Your task to perform on an android device: open app "Truecaller" (install if not already installed), go to login, and select forgot password Image 0: 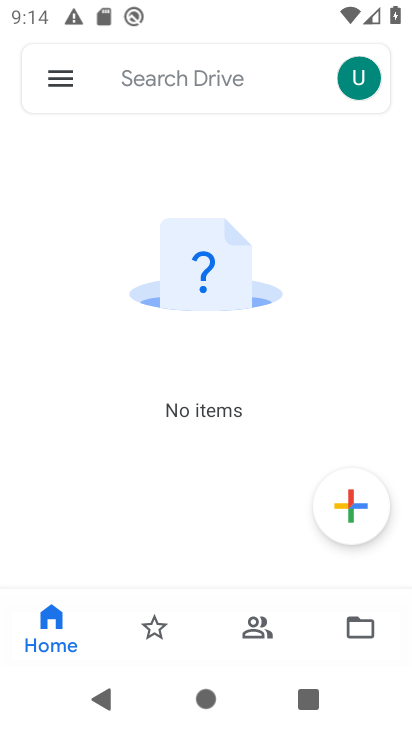
Step 0: press home button
Your task to perform on an android device: open app "Truecaller" (install if not already installed), go to login, and select forgot password Image 1: 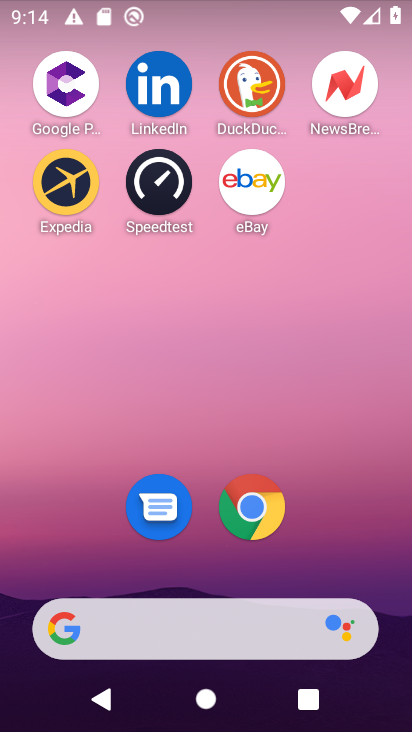
Step 1: drag from (182, 571) to (168, 41)
Your task to perform on an android device: open app "Truecaller" (install if not already installed), go to login, and select forgot password Image 2: 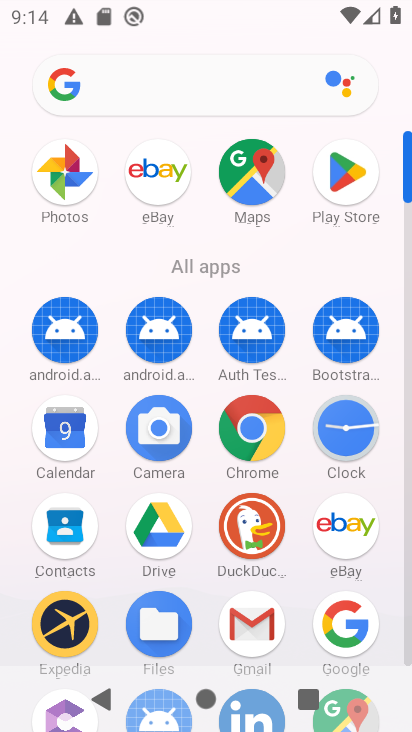
Step 2: click (345, 171)
Your task to perform on an android device: open app "Truecaller" (install if not already installed), go to login, and select forgot password Image 3: 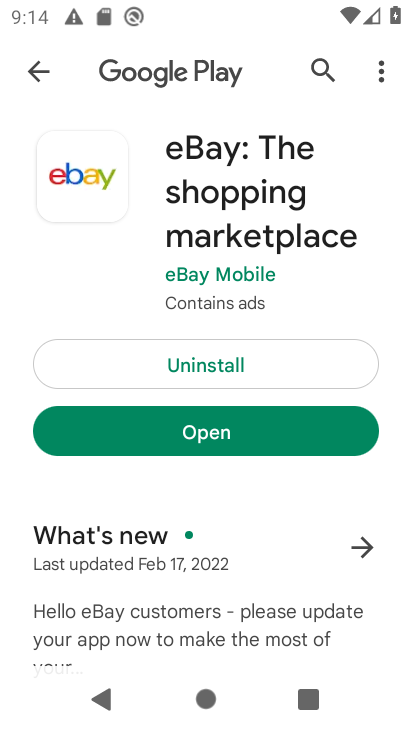
Step 3: click (327, 65)
Your task to perform on an android device: open app "Truecaller" (install if not already installed), go to login, and select forgot password Image 4: 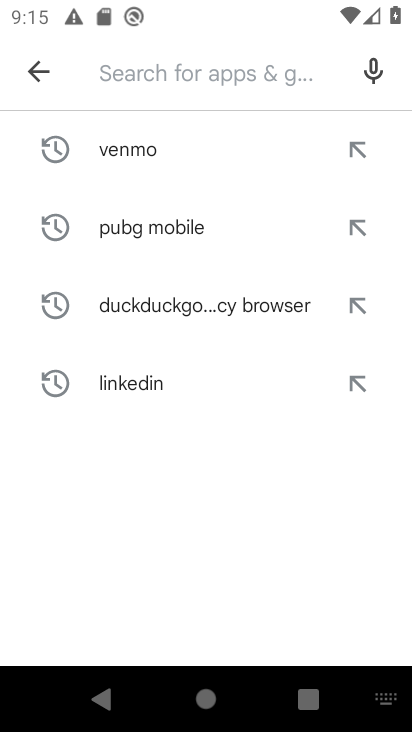
Step 4: type "Truecaller"
Your task to perform on an android device: open app "Truecaller" (install if not already installed), go to login, and select forgot password Image 5: 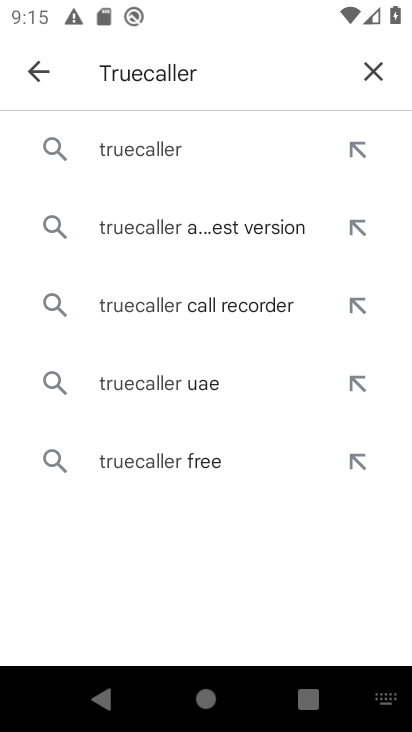
Step 5: click (145, 153)
Your task to perform on an android device: open app "Truecaller" (install if not already installed), go to login, and select forgot password Image 6: 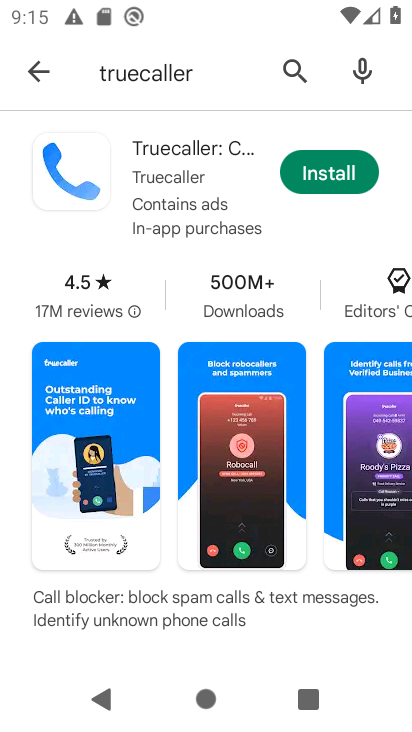
Step 6: click (321, 178)
Your task to perform on an android device: open app "Truecaller" (install if not already installed), go to login, and select forgot password Image 7: 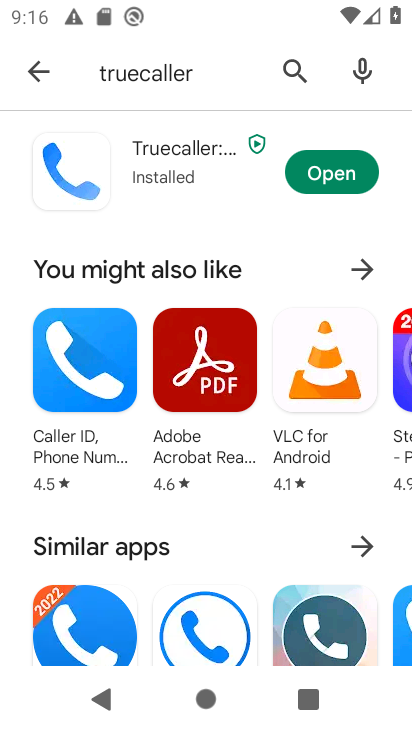
Step 7: click (345, 181)
Your task to perform on an android device: open app "Truecaller" (install if not already installed), go to login, and select forgot password Image 8: 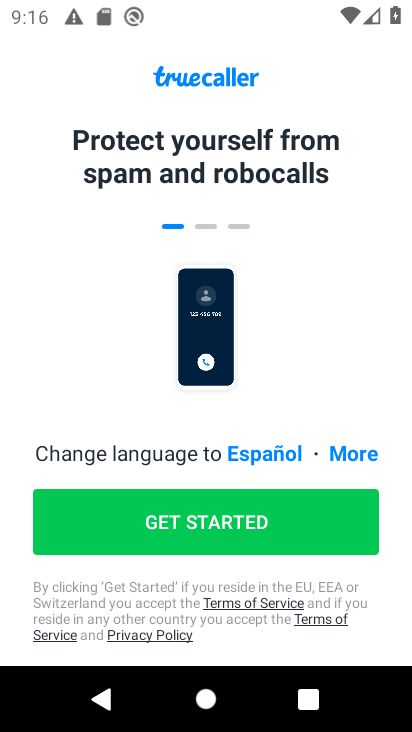
Step 8: click (181, 521)
Your task to perform on an android device: open app "Truecaller" (install if not already installed), go to login, and select forgot password Image 9: 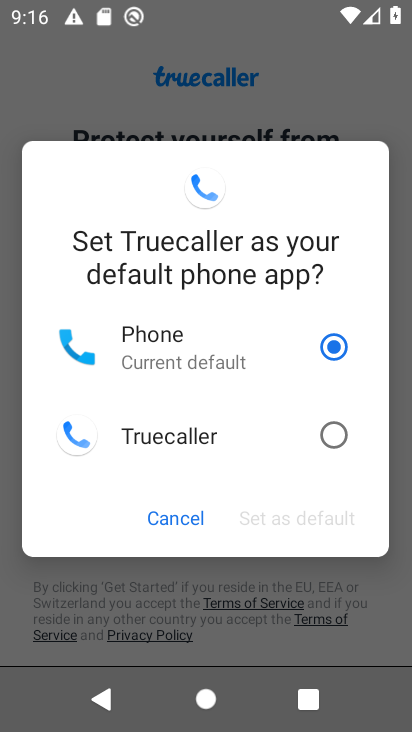
Step 9: click (333, 427)
Your task to perform on an android device: open app "Truecaller" (install if not already installed), go to login, and select forgot password Image 10: 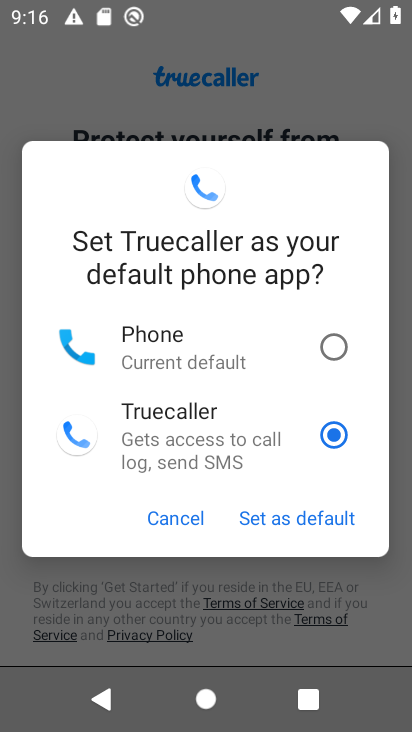
Step 10: click (306, 514)
Your task to perform on an android device: open app "Truecaller" (install if not already installed), go to login, and select forgot password Image 11: 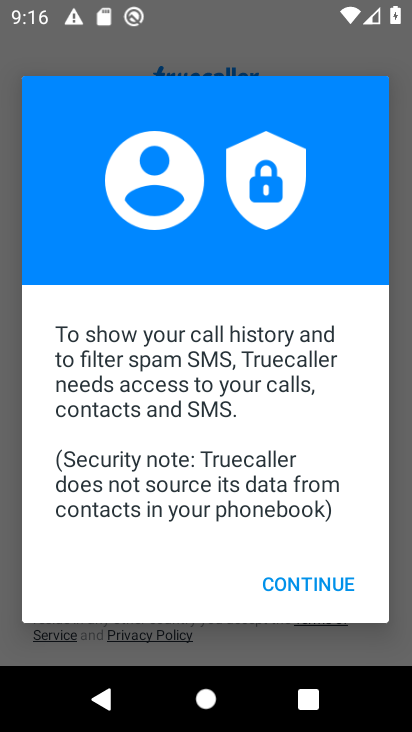
Step 11: click (328, 586)
Your task to perform on an android device: open app "Truecaller" (install if not already installed), go to login, and select forgot password Image 12: 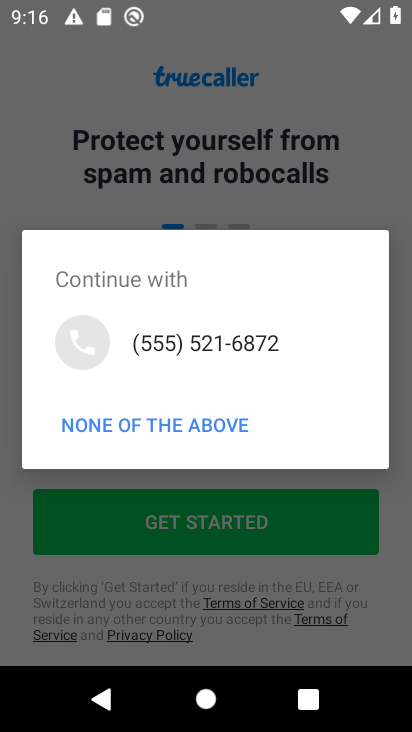
Step 12: click (218, 353)
Your task to perform on an android device: open app "Truecaller" (install if not already installed), go to login, and select forgot password Image 13: 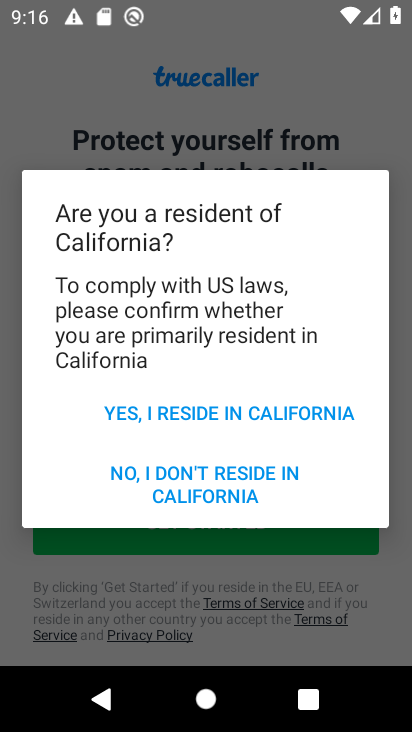
Step 13: click (233, 413)
Your task to perform on an android device: open app "Truecaller" (install if not already installed), go to login, and select forgot password Image 14: 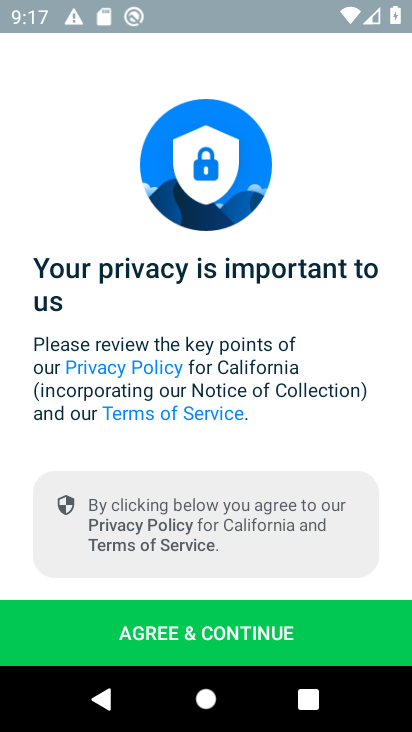
Step 14: click (231, 647)
Your task to perform on an android device: open app "Truecaller" (install if not already installed), go to login, and select forgot password Image 15: 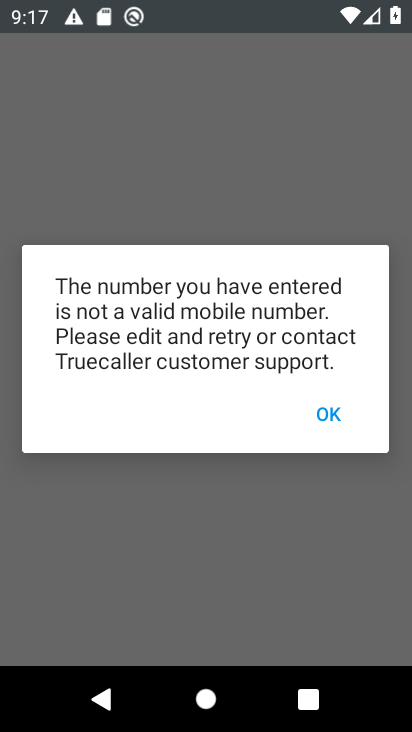
Step 15: click (333, 408)
Your task to perform on an android device: open app "Truecaller" (install if not already installed), go to login, and select forgot password Image 16: 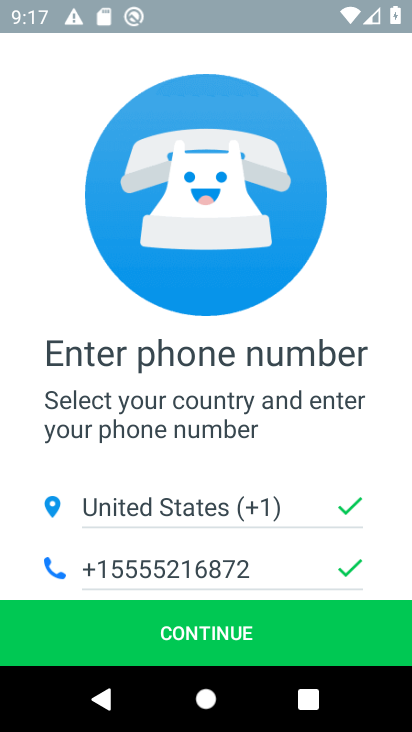
Step 16: click (203, 627)
Your task to perform on an android device: open app "Truecaller" (install if not already installed), go to login, and select forgot password Image 17: 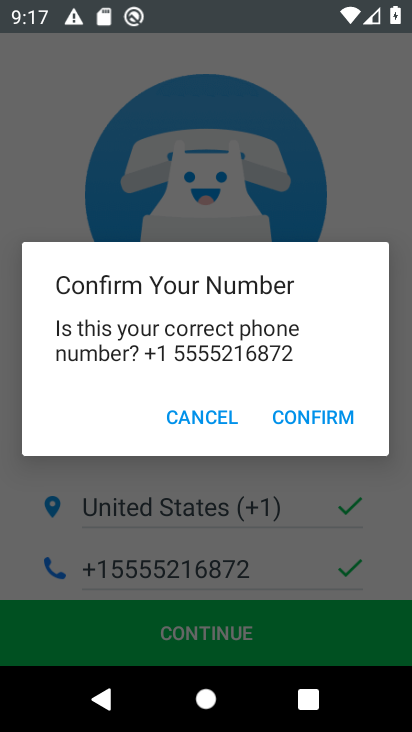
Step 17: click (320, 419)
Your task to perform on an android device: open app "Truecaller" (install if not already installed), go to login, and select forgot password Image 18: 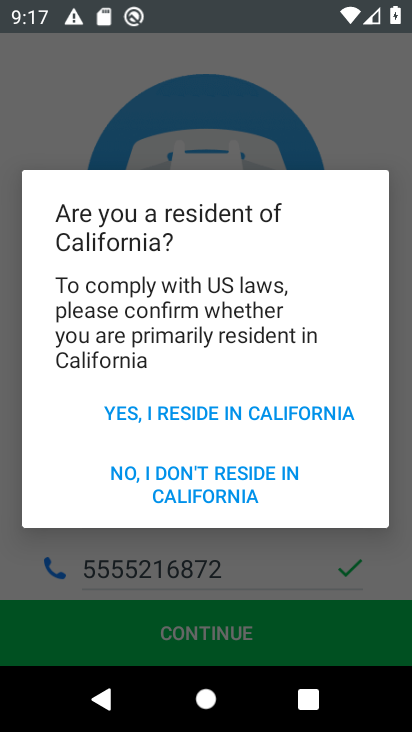
Step 18: click (245, 479)
Your task to perform on an android device: open app "Truecaller" (install if not already installed), go to login, and select forgot password Image 19: 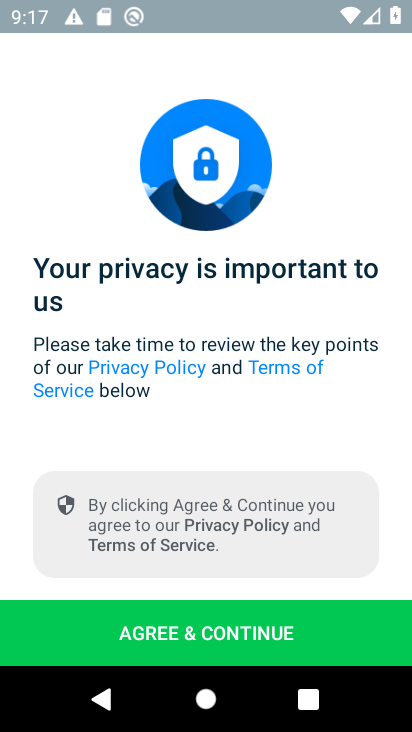
Step 19: click (207, 624)
Your task to perform on an android device: open app "Truecaller" (install if not already installed), go to login, and select forgot password Image 20: 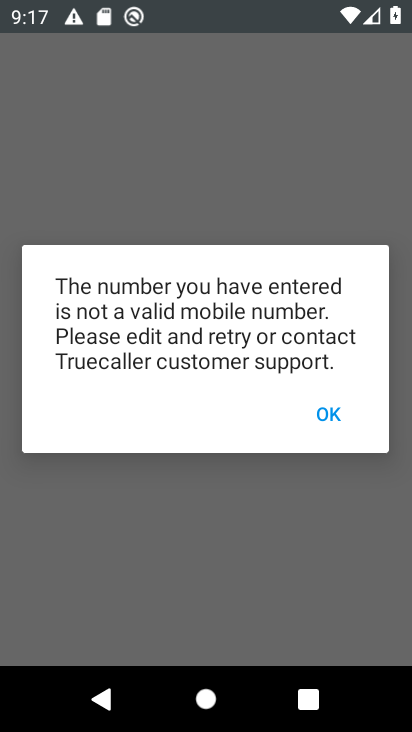
Step 20: click (329, 414)
Your task to perform on an android device: open app "Truecaller" (install if not already installed), go to login, and select forgot password Image 21: 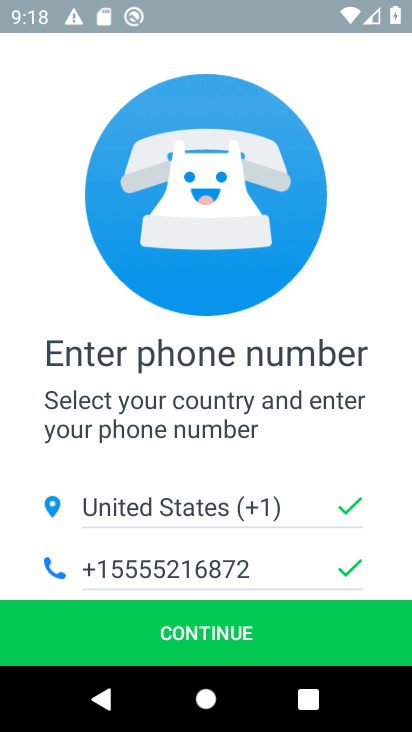
Step 21: task complete